Your task to perform on an android device: toggle location history Image 0: 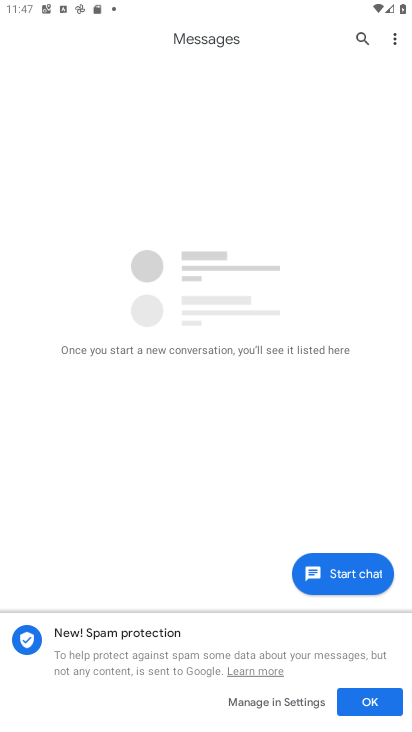
Step 0: press home button
Your task to perform on an android device: toggle location history Image 1: 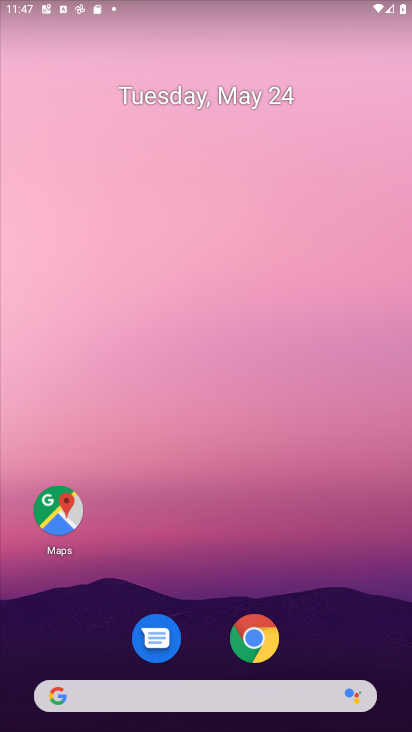
Step 1: drag from (196, 654) to (280, 195)
Your task to perform on an android device: toggle location history Image 2: 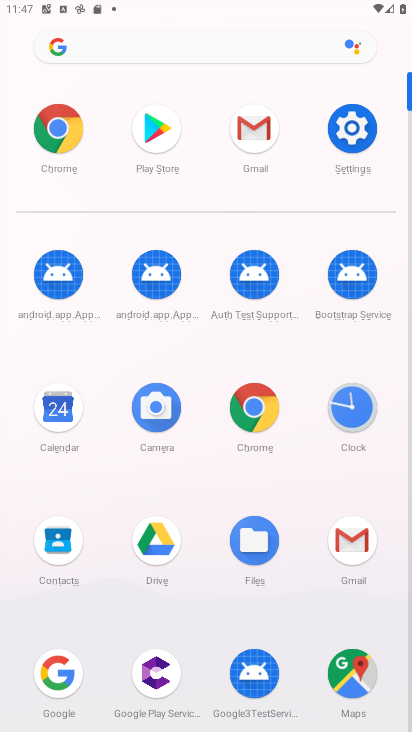
Step 2: click (349, 680)
Your task to perform on an android device: toggle location history Image 3: 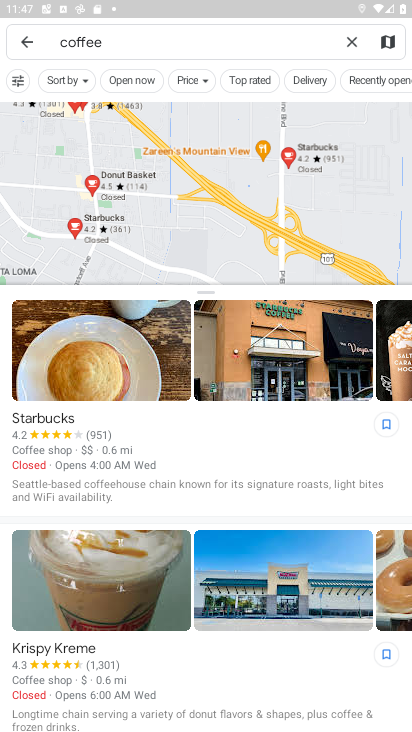
Step 3: click (346, 41)
Your task to perform on an android device: toggle location history Image 4: 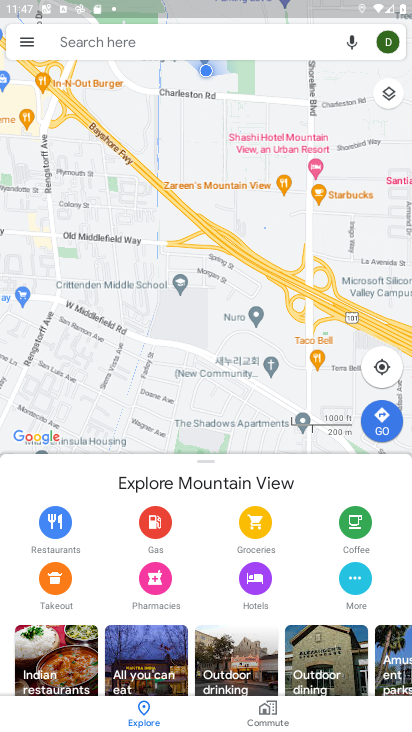
Step 4: click (31, 51)
Your task to perform on an android device: toggle location history Image 5: 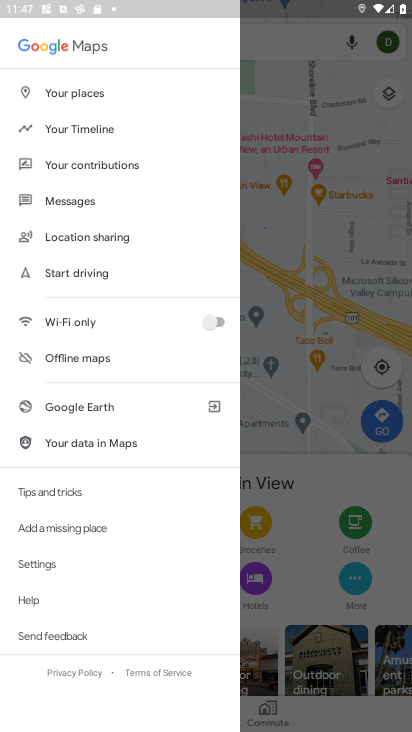
Step 5: click (48, 559)
Your task to perform on an android device: toggle location history Image 6: 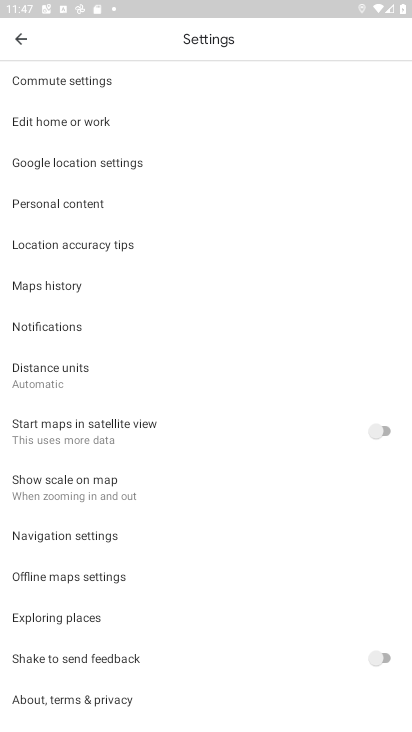
Step 6: click (160, 160)
Your task to perform on an android device: toggle location history Image 7: 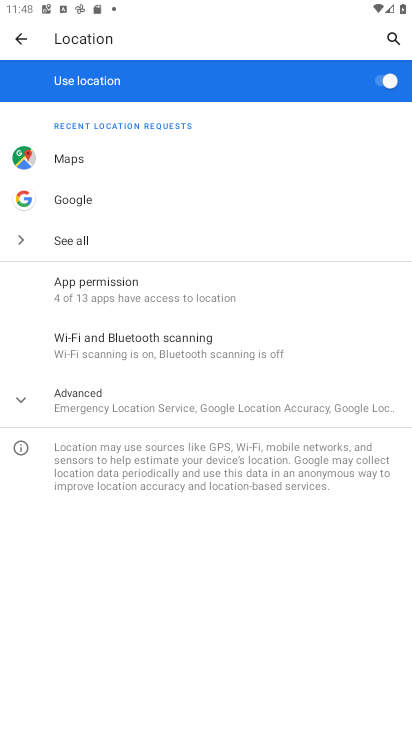
Step 7: click (167, 386)
Your task to perform on an android device: toggle location history Image 8: 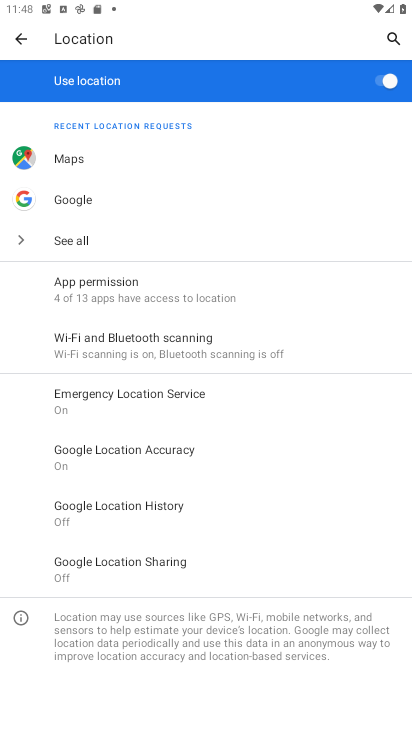
Step 8: click (150, 506)
Your task to perform on an android device: toggle location history Image 9: 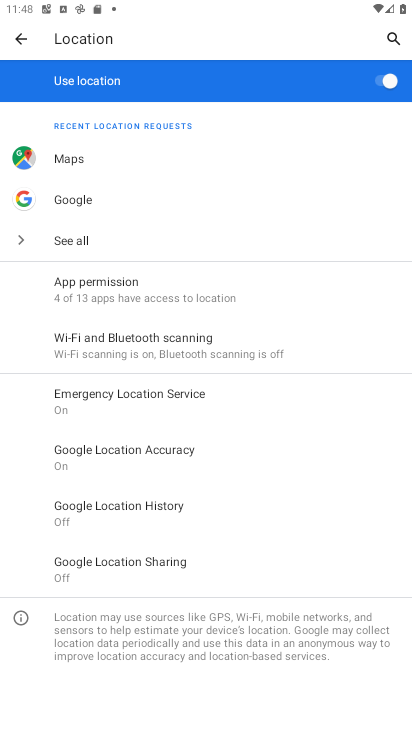
Step 9: click (119, 509)
Your task to perform on an android device: toggle location history Image 10: 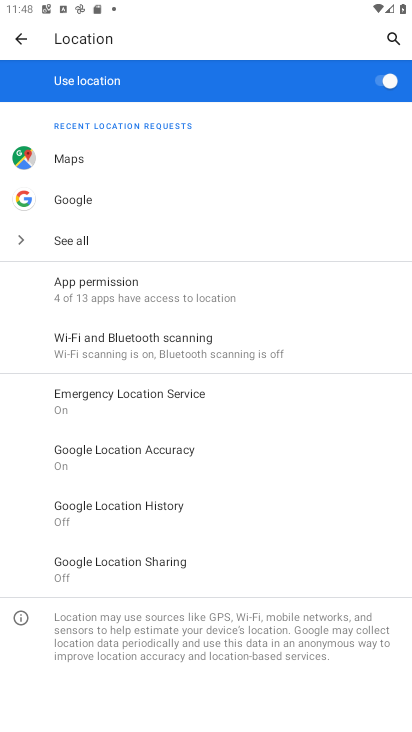
Step 10: click (116, 519)
Your task to perform on an android device: toggle location history Image 11: 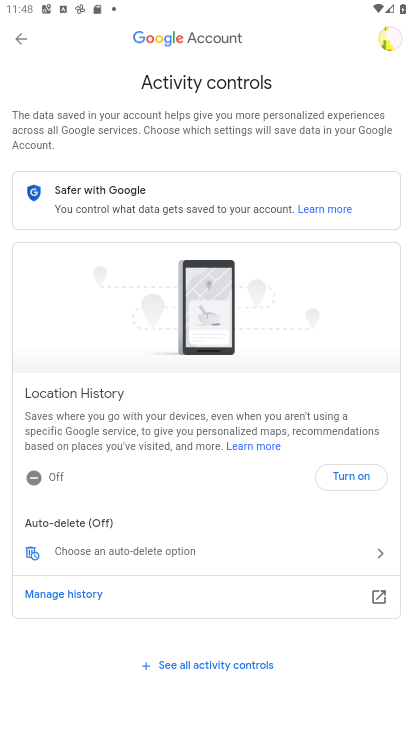
Step 11: click (347, 479)
Your task to perform on an android device: toggle location history Image 12: 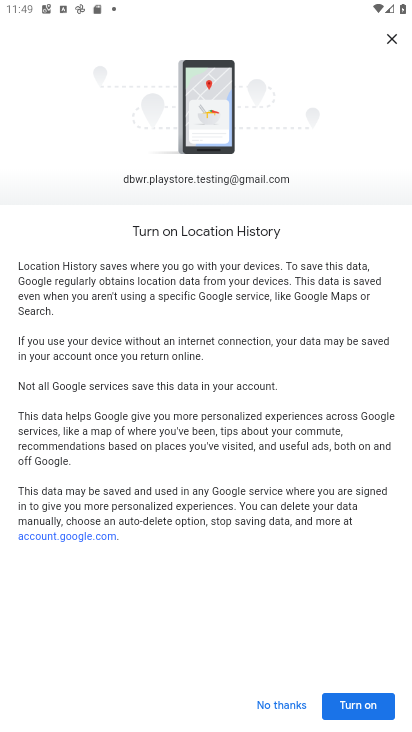
Step 12: click (393, 713)
Your task to perform on an android device: toggle location history Image 13: 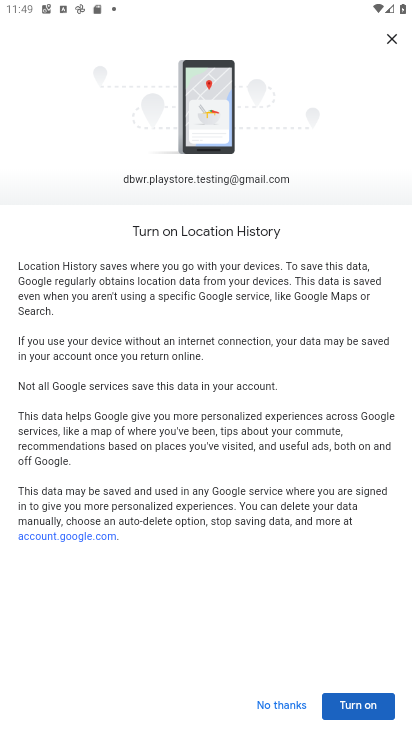
Step 13: click (361, 708)
Your task to perform on an android device: toggle location history Image 14: 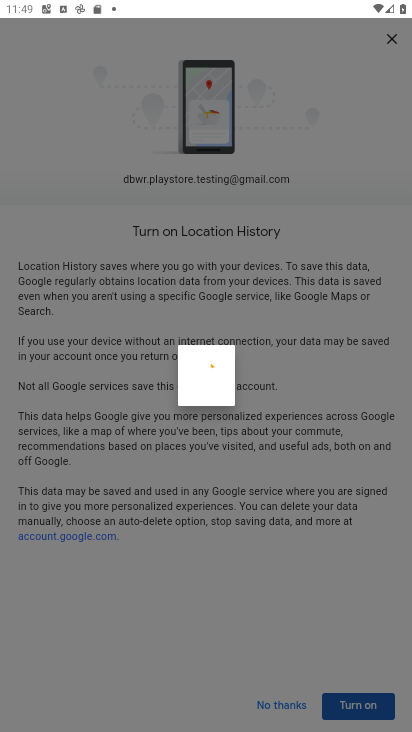
Step 14: click (355, 716)
Your task to perform on an android device: toggle location history Image 15: 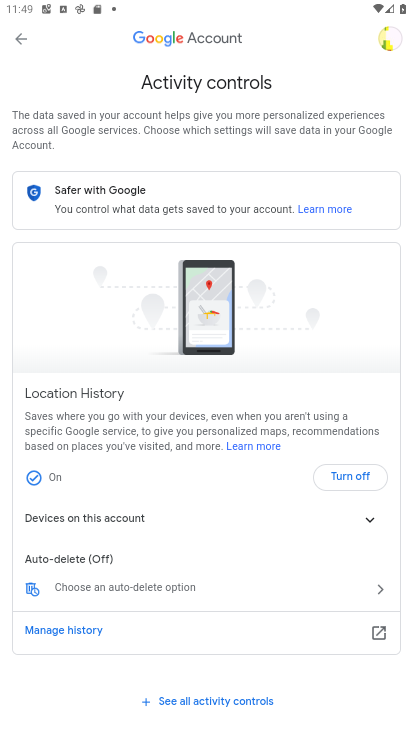
Step 15: task complete